Your task to perform on an android device: Open Chrome and go to settings Image 0: 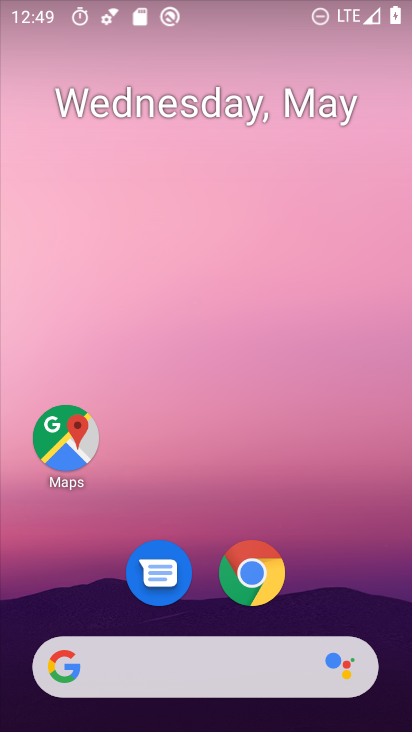
Step 0: drag from (363, 563) to (262, 17)
Your task to perform on an android device: Open Chrome and go to settings Image 1: 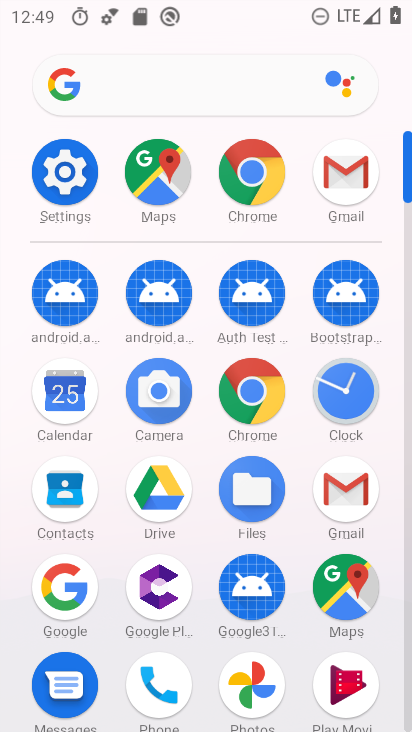
Step 1: drag from (15, 564) to (23, 123)
Your task to perform on an android device: Open Chrome and go to settings Image 2: 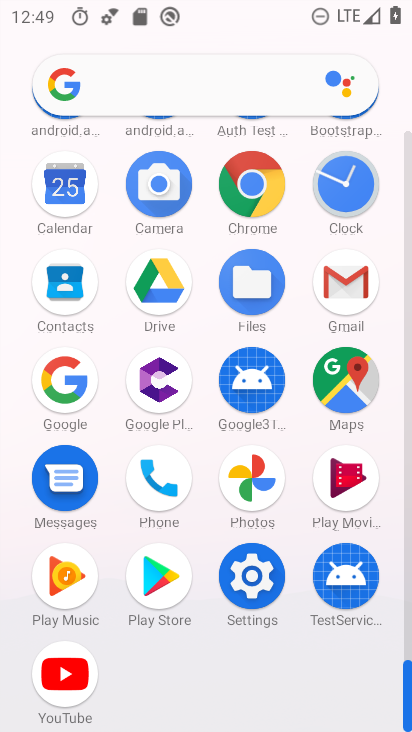
Step 2: click (253, 180)
Your task to perform on an android device: Open Chrome and go to settings Image 3: 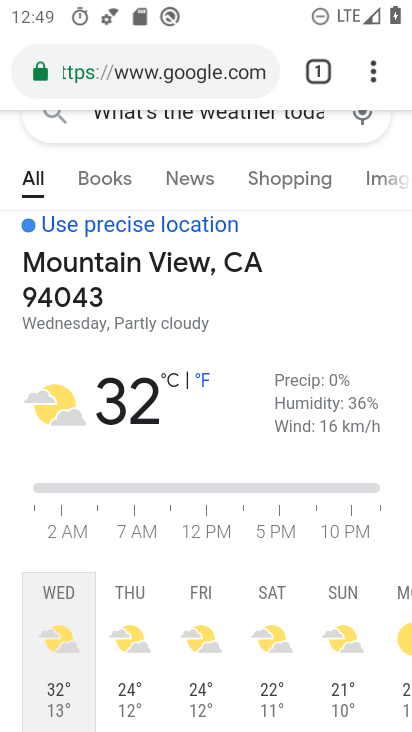
Step 3: task complete